Your task to perform on an android device: Check the weather Image 0: 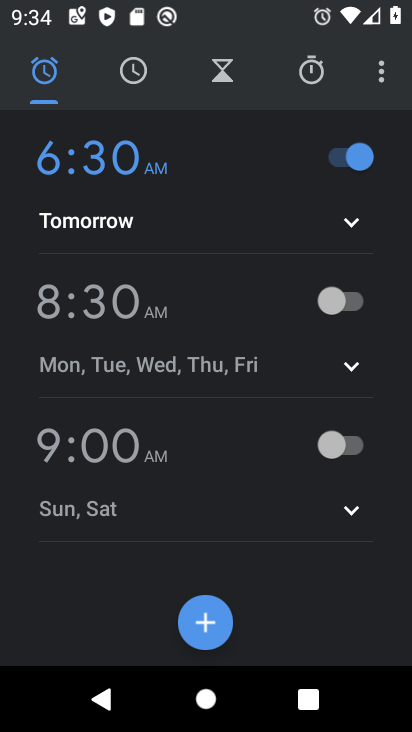
Step 0: press home button
Your task to perform on an android device: Check the weather Image 1: 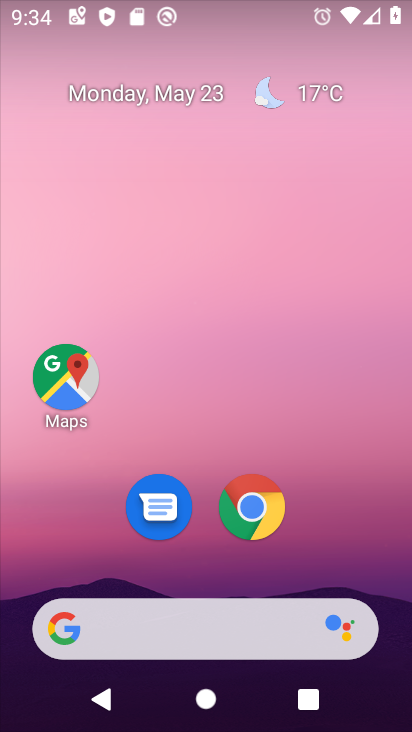
Step 1: click (325, 100)
Your task to perform on an android device: Check the weather Image 2: 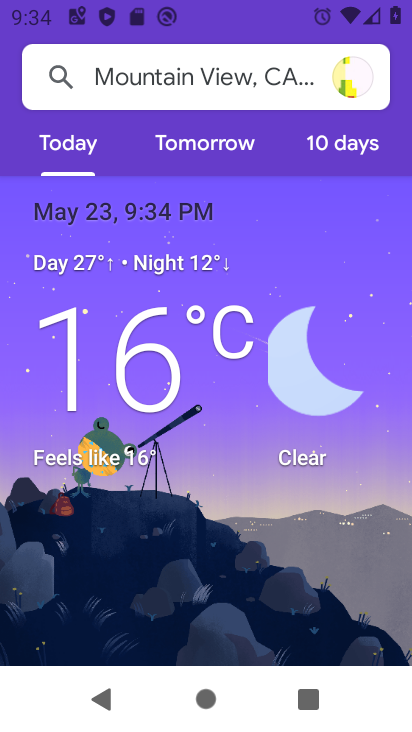
Step 2: task complete